Your task to perform on an android device: Is it going to rain tomorrow? Image 0: 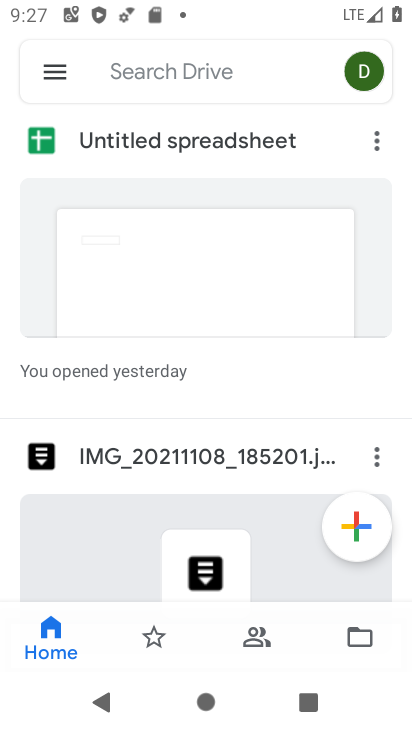
Step 0: press home button
Your task to perform on an android device: Is it going to rain tomorrow? Image 1: 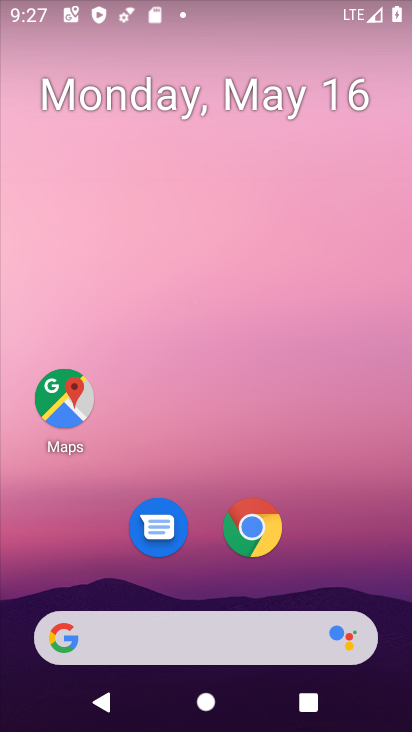
Step 1: click (95, 635)
Your task to perform on an android device: Is it going to rain tomorrow? Image 2: 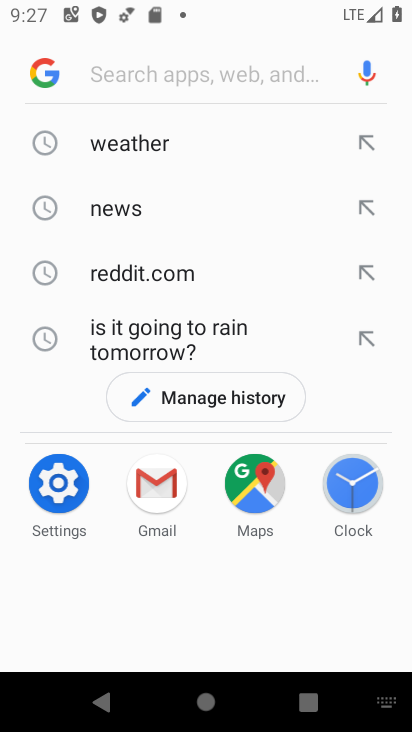
Step 2: click (115, 140)
Your task to perform on an android device: Is it going to rain tomorrow? Image 3: 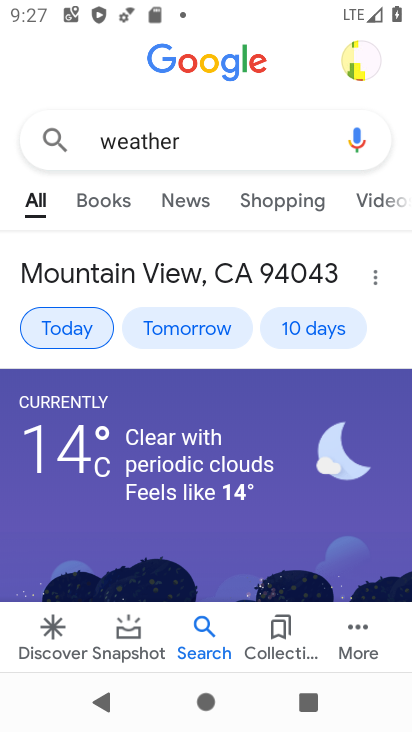
Step 3: click (173, 326)
Your task to perform on an android device: Is it going to rain tomorrow? Image 4: 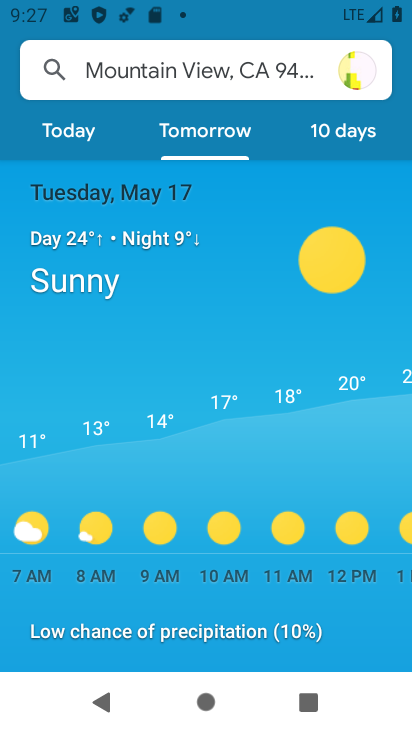
Step 4: task complete